Your task to perform on an android device: open app "Google Docs" (install if not already installed) Image 0: 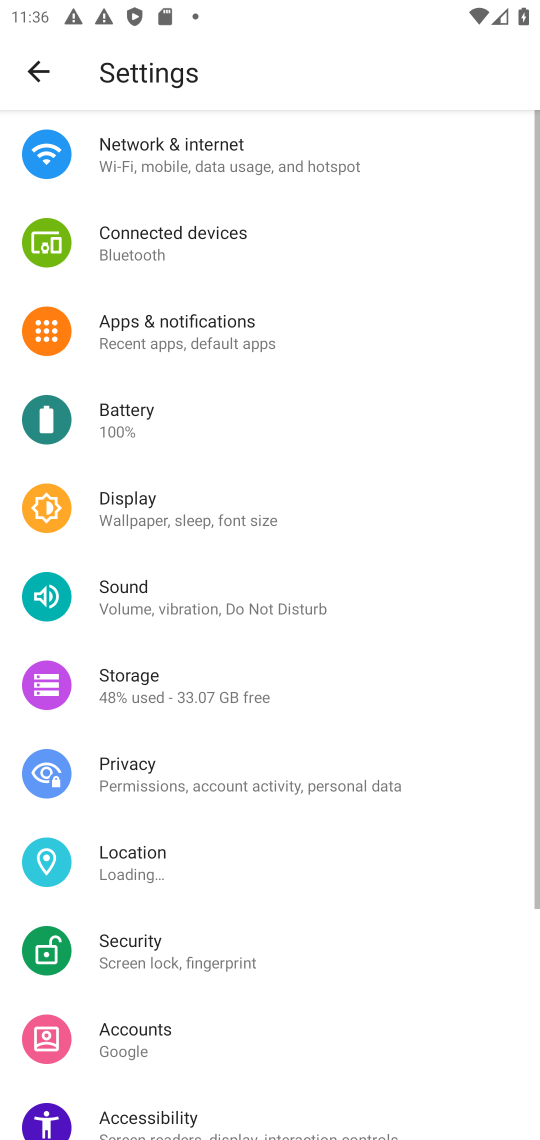
Step 0: press home button
Your task to perform on an android device: open app "Google Docs" (install if not already installed) Image 1: 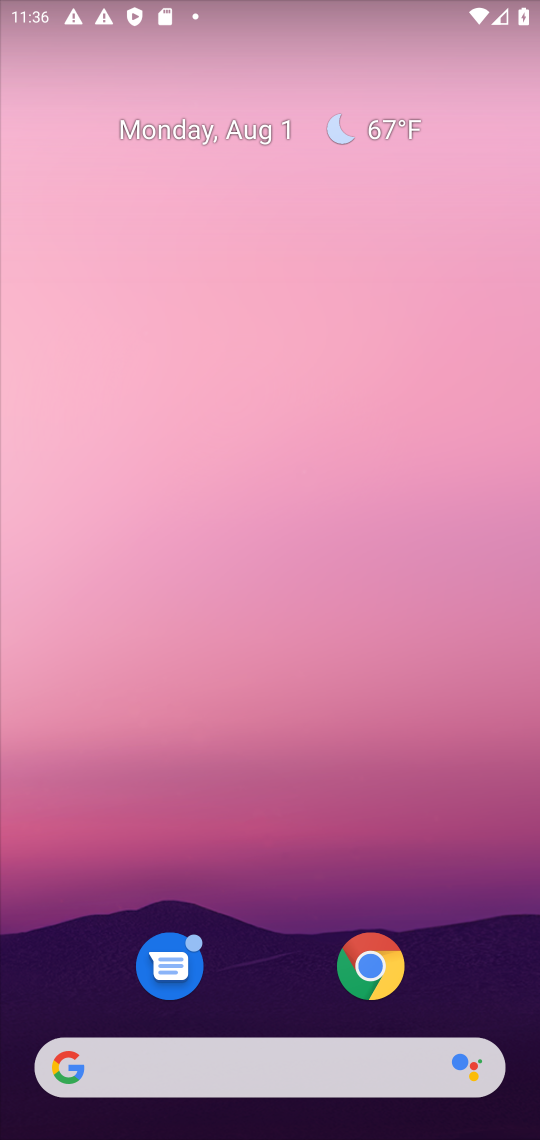
Step 1: drag from (447, 741) to (448, 112)
Your task to perform on an android device: open app "Google Docs" (install if not already installed) Image 2: 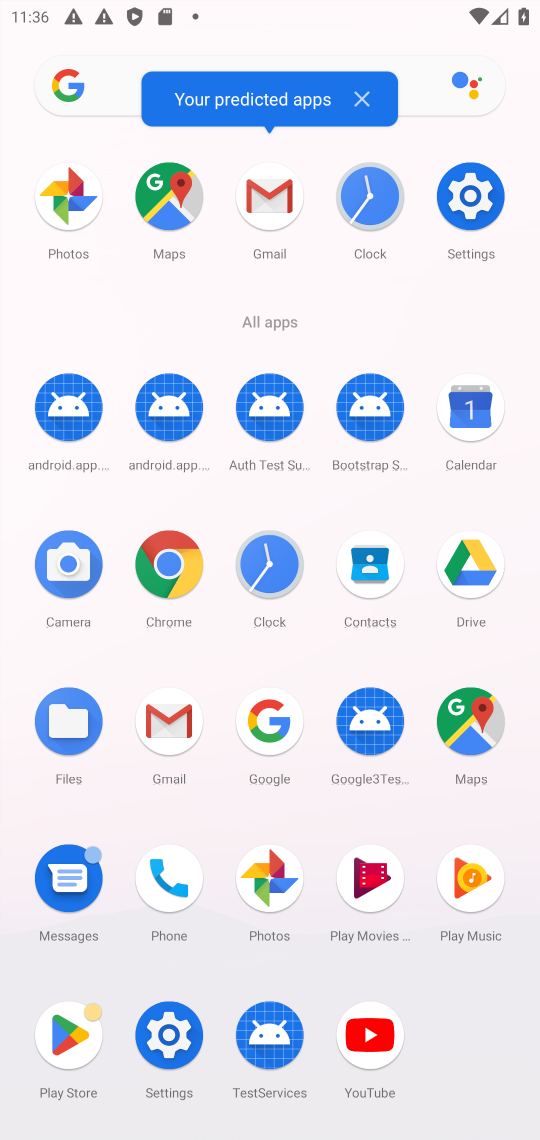
Step 2: click (68, 1037)
Your task to perform on an android device: open app "Google Docs" (install if not already installed) Image 3: 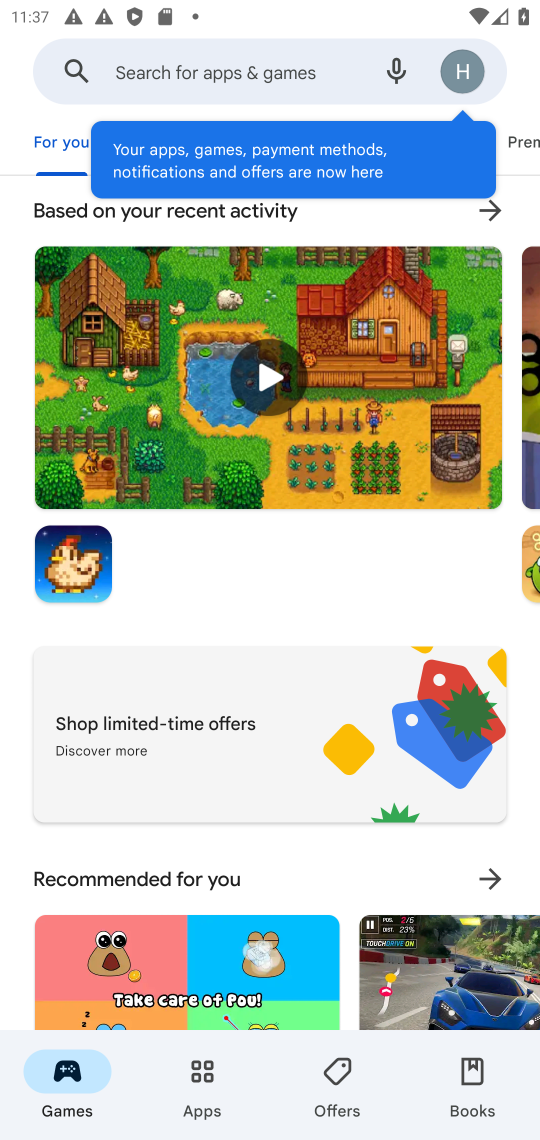
Step 3: click (227, 60)
Your task to perform on an android device: open app "Google Docs" (install if not already installed) Image 4: 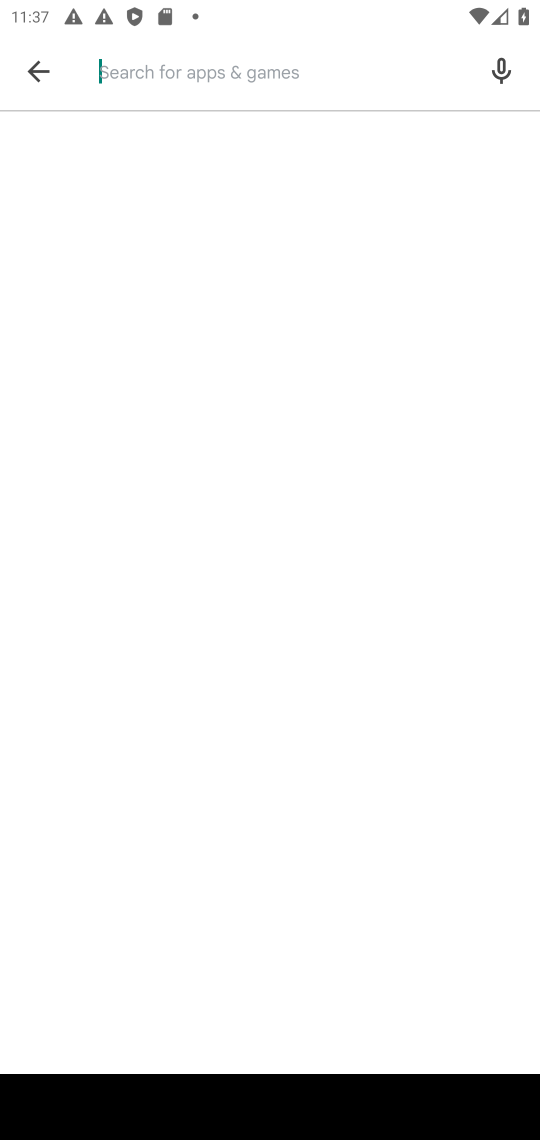
Step 4: type "google docs"
Your task to perform on an android device: open app "Google Docs" (install if not already installed) Image 5: 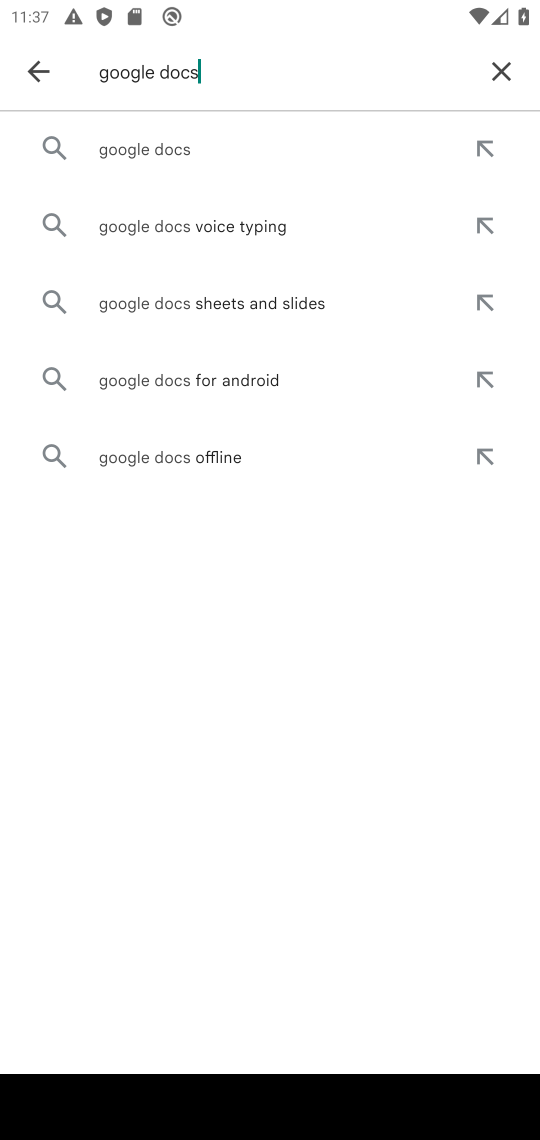
Step 5: click (200, 152)
Your task to perform on an android device: open app "Google Docs" (install if not already installed) Image 6: 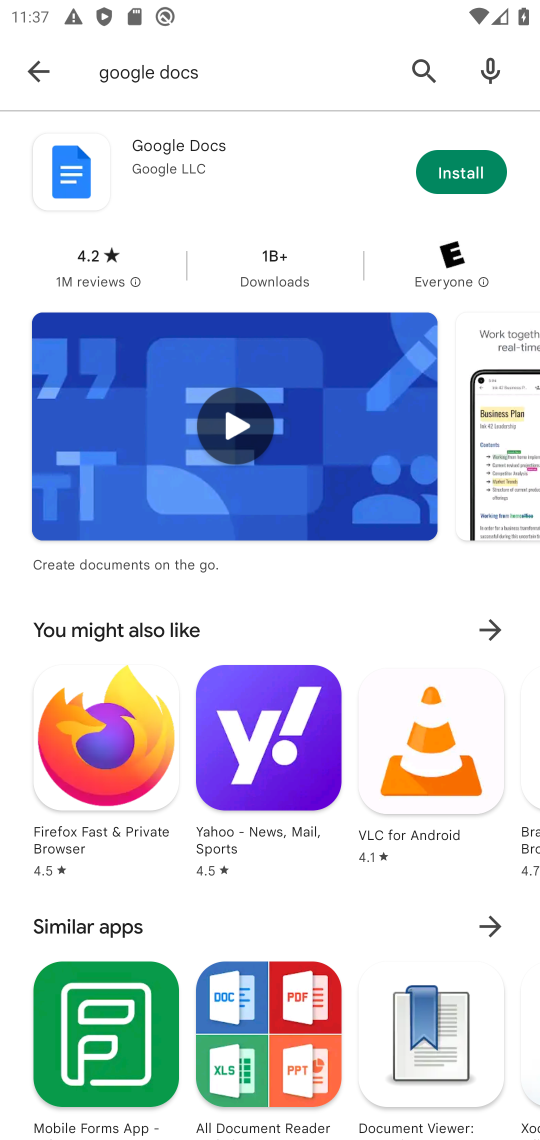
Step 6: click (478, 168)
Your task to perform on an android device: open app "Google Docs" (install if not already installed) Image 7: 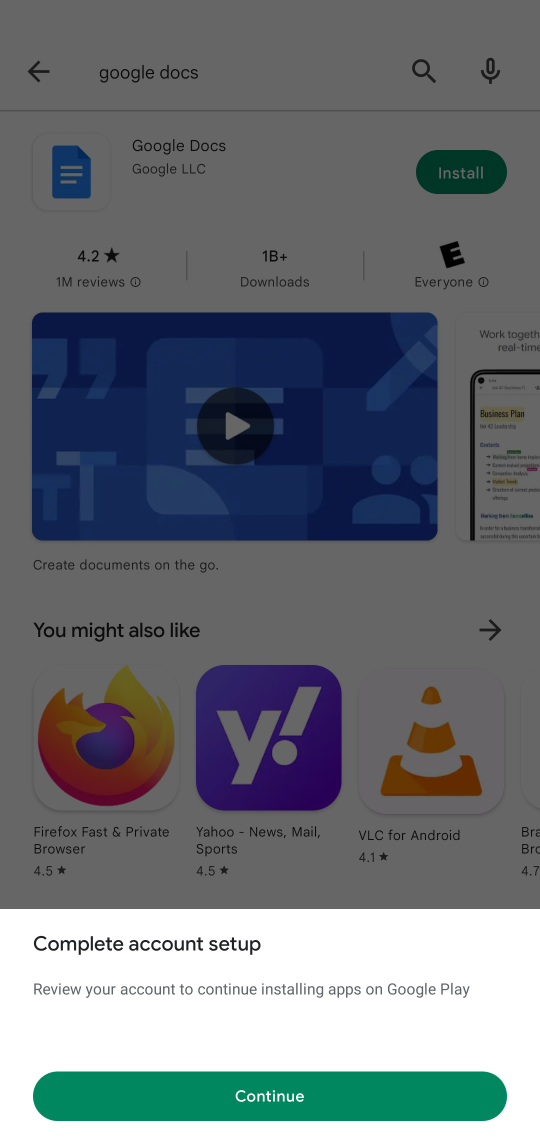
Step 7: click (304, 1100)
Your task to perform on an android device: open app "Google Docs" (install if not already installed) Image 8: 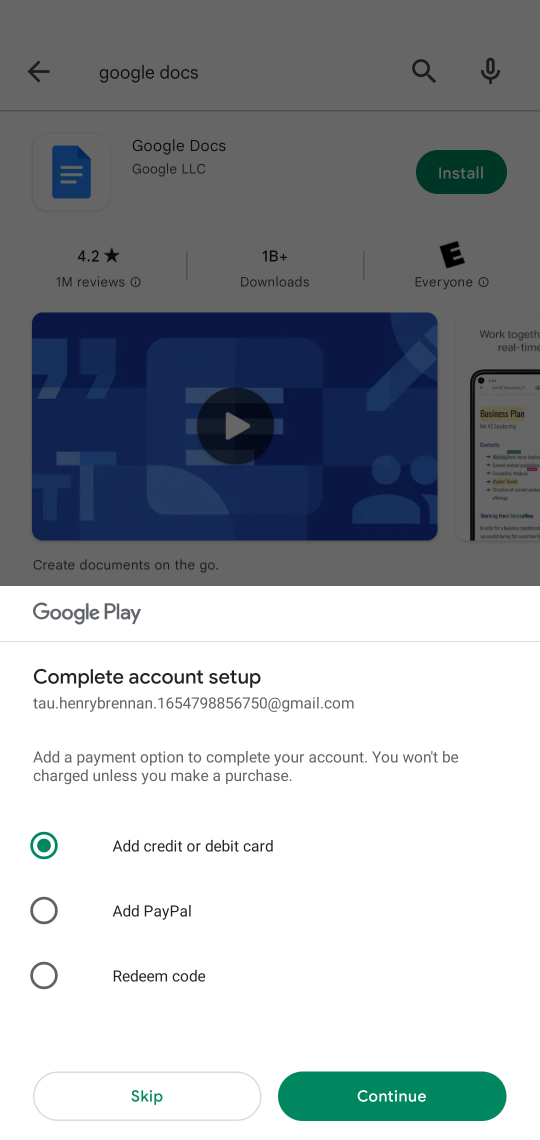
Step 8: click (150, 1093)
Your task to perform on an android device: open app "Google Docs" (install if not already installed) Image 9: 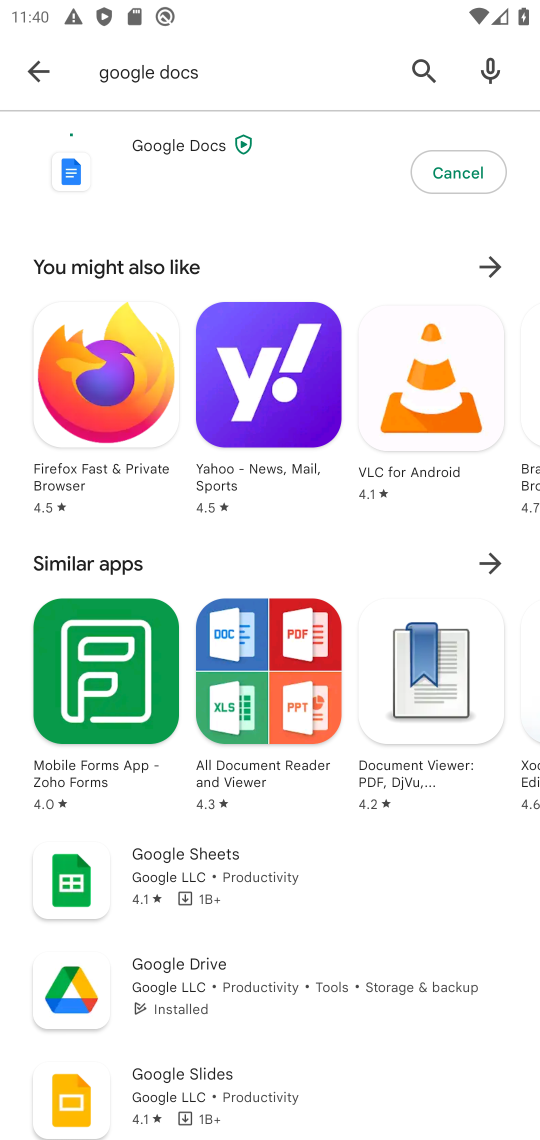
Step 9: task complete